Your task to perform on an android device: toggle sleep mode Image 0: 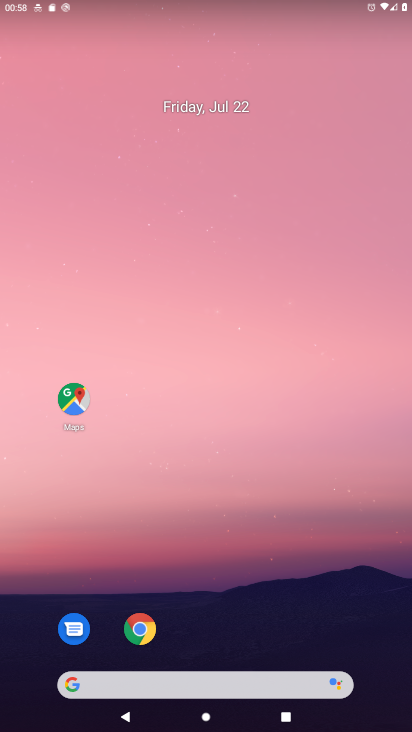
Step 0: click (260, 212)
Your task to perform on an android device: toggle sleep mode Image 1: 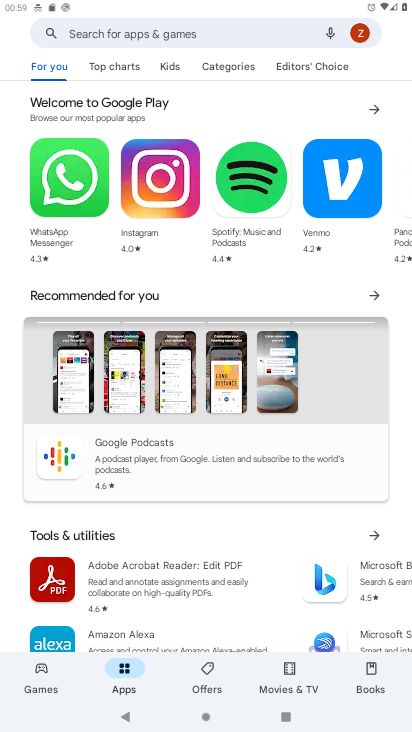
Step 1: press home button
Your task to perform on an android device: toggle sleep mode Image 2: 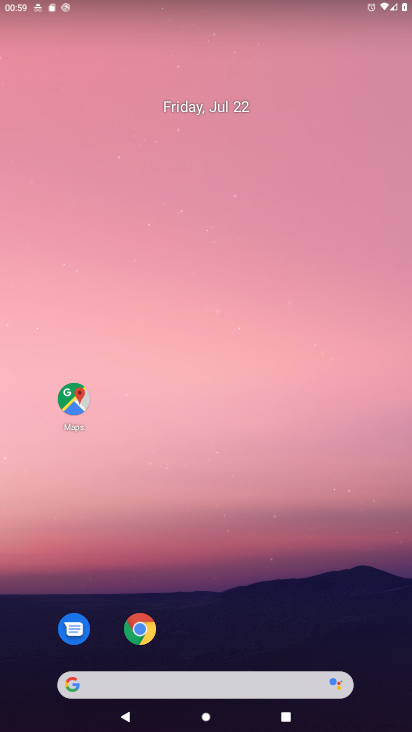
Step 2: drag from (224, 631) to (235, 297)
Your task to perform on an android device: toggle sleep mode Image 3: 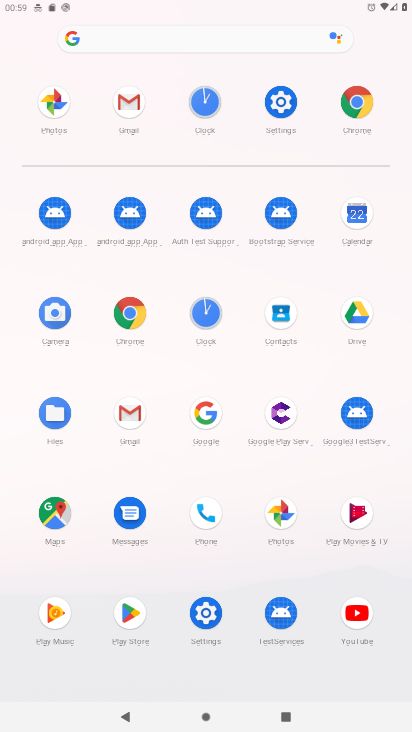
Step 3: click (277, 99)
Your task to perform on an android device: toggle sleep mode Image 4: 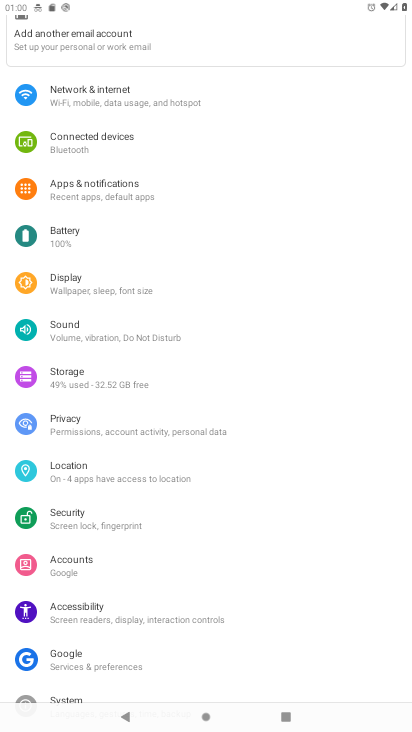
Step 4: task complete